Your task to perform on an android device: add a contact in the contacts app Image 0: 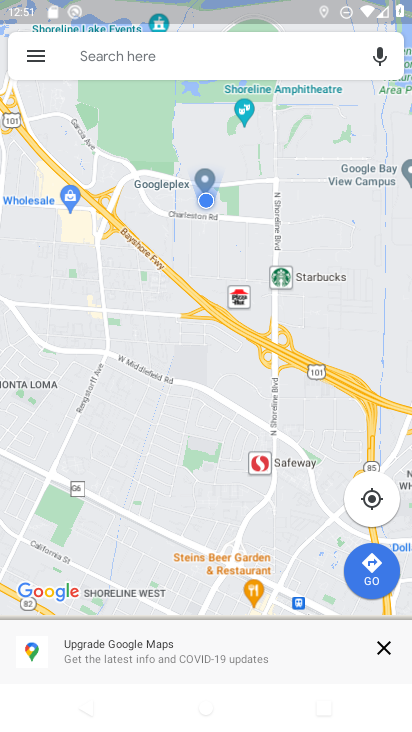
Step 0: press home button
Your task to perform on an android device: add a contact in the contacts app Image 1: 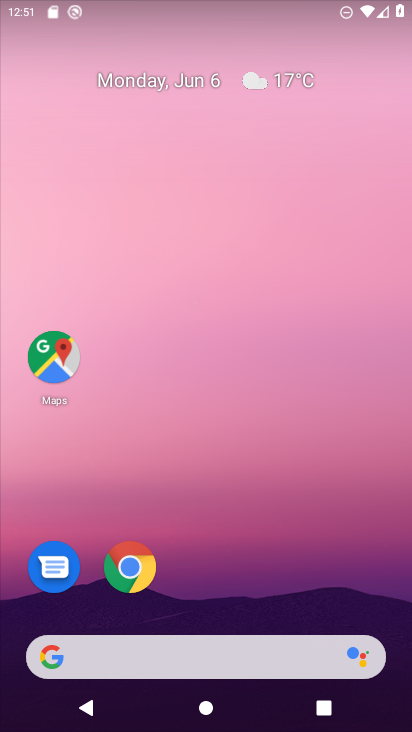
Step 1: drag from (238, 669) to (238, 75)
Your task to perform on an android device: add a contact in the contacts app Image 2: 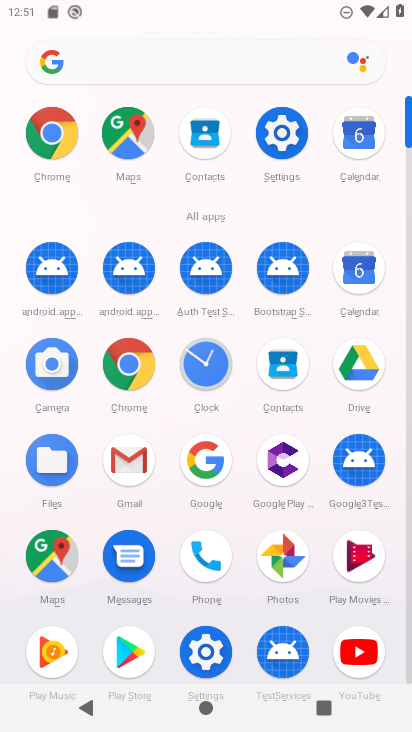
Step 2: click (288, 368)
Your task to perform on an android device: add a contact in the contacts app Image 3: 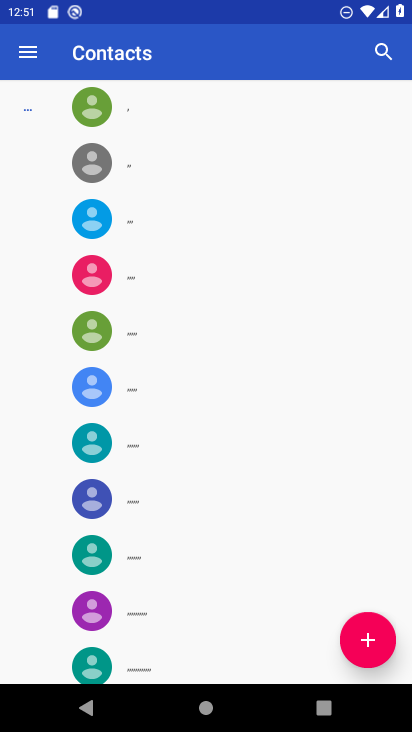
Step 3: click (366, 632)
Your task to perform on an android device: add a contact in the contacts app Image 4: 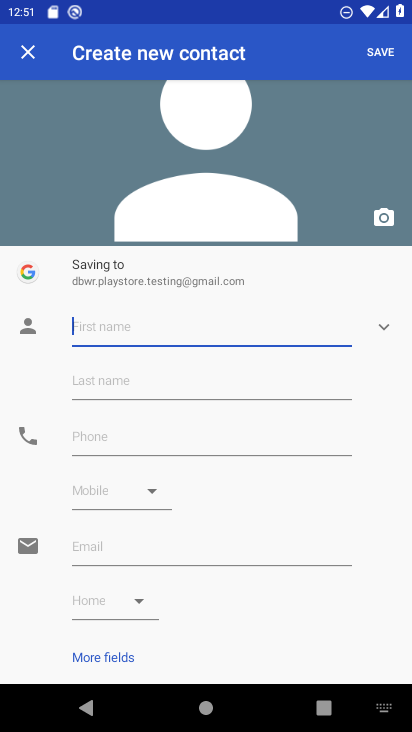
Step 4: type "bbbb"
Your task to perform on an android device: add a contact in the contacts app Image 5: 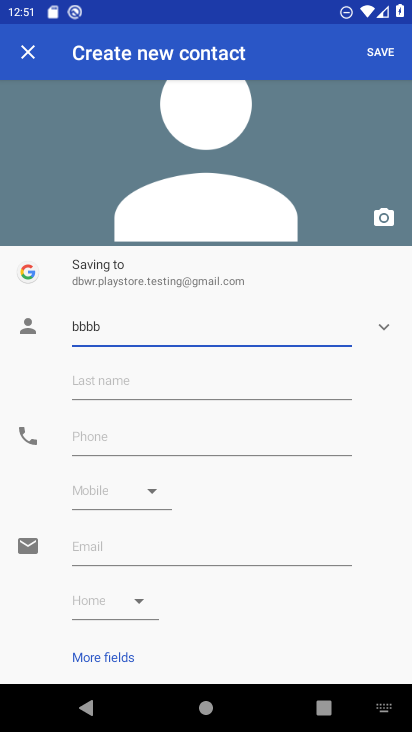
Step 5: click (129, 429)
Your task to perform on an android device: add a contact in the contacts app Image 6: 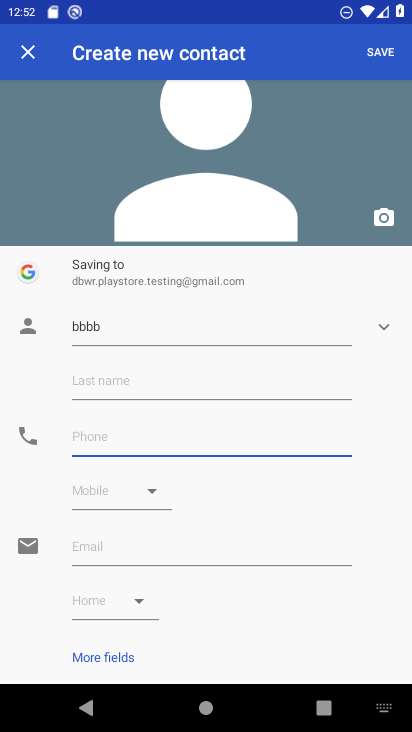
Step 6: type "8877888"
Your task to perform on an android device: add a contact in the contacts app Image 7: 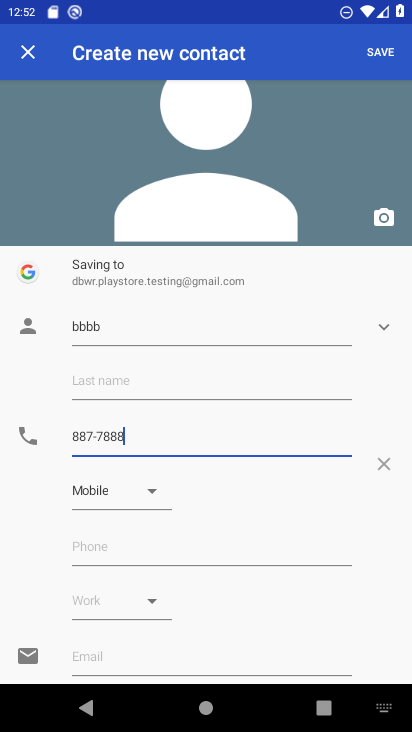
Step 7: click (376, 51)
Your task to perform on an android device: add a contact in the contacts app Image 8: 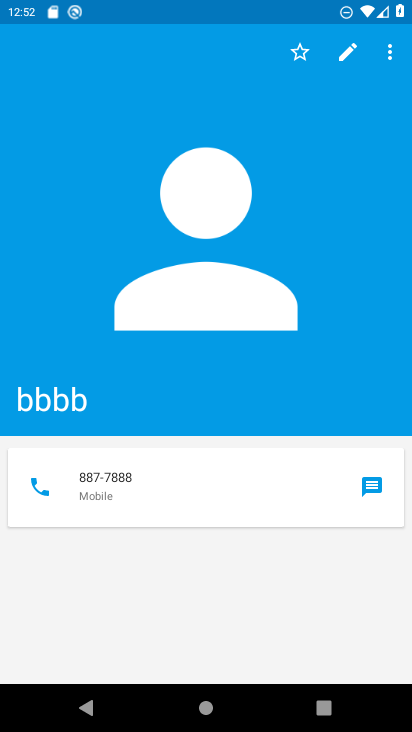
Step 8: task complete